Your task to perform on an android device: Open Maps and search for coffee Image 0: 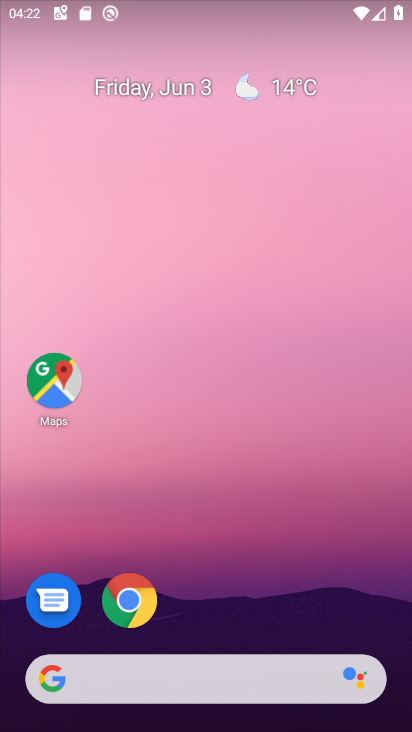
Step 0: click (55, 370)
Your task to perform on an android device: Open Maps and search for coffee Image 1: 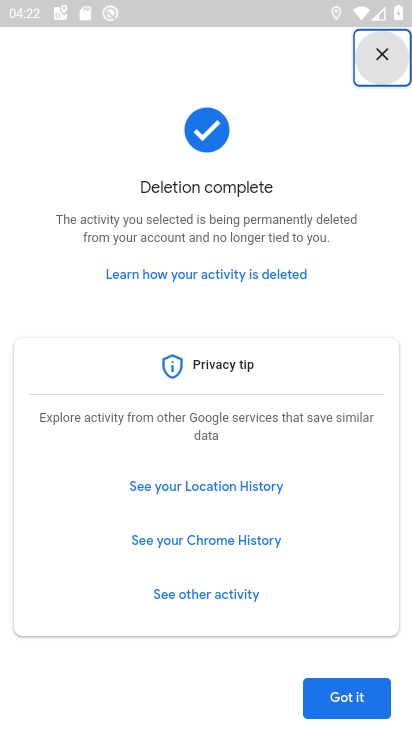
Step 1: click (345, 711)
Your task to perform on an android device: Open Maps and search for coffee Image 2: 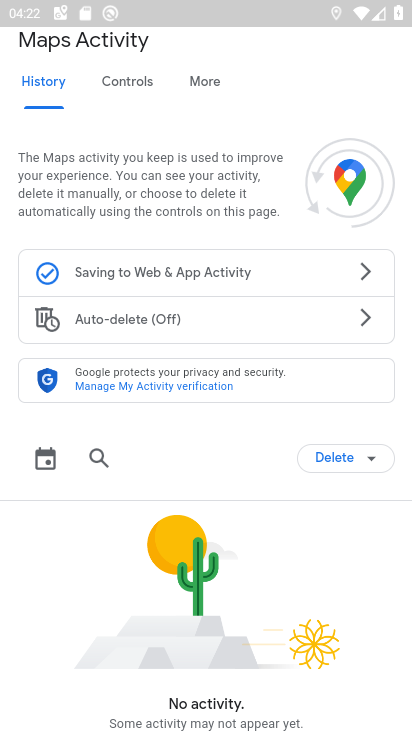
Step 2: press back button
Your task to perform on an android device: Open Maps and search for coffee Image 3: 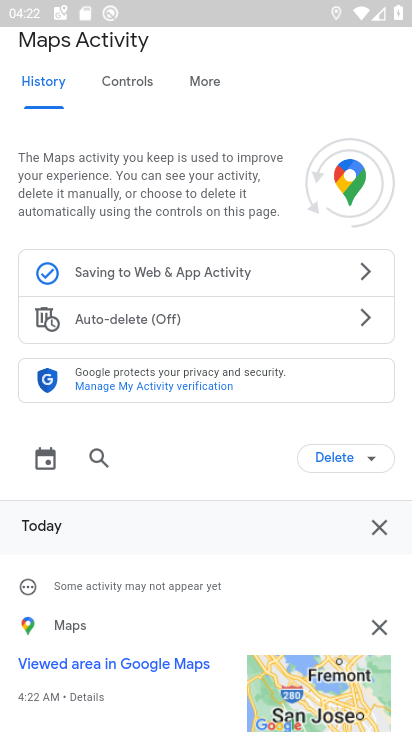
Step 3: press back button
Your task to perform on an android device: Open Maps and search for coffee Image 4: 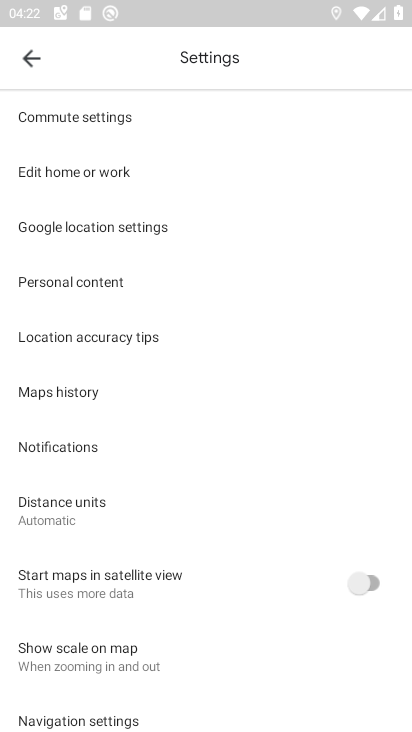
Step 4: click (18, 64)
Your task to perform on an android device: Open Maps and search for coffee Image 5: 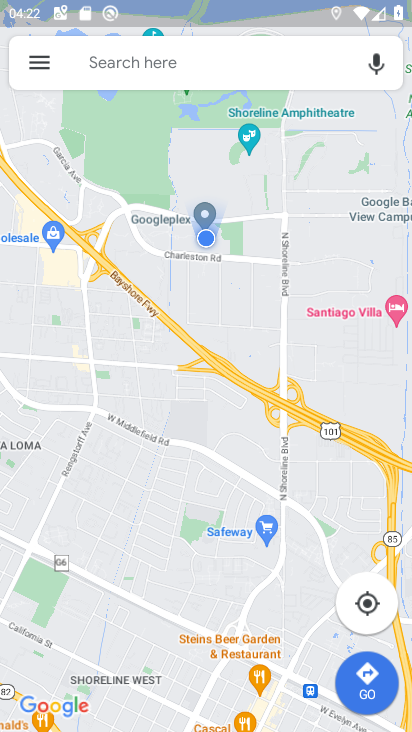
Step 5: click (148, 75)
Your task to perform on an android device: Open Maps and search for coffee Image 6: 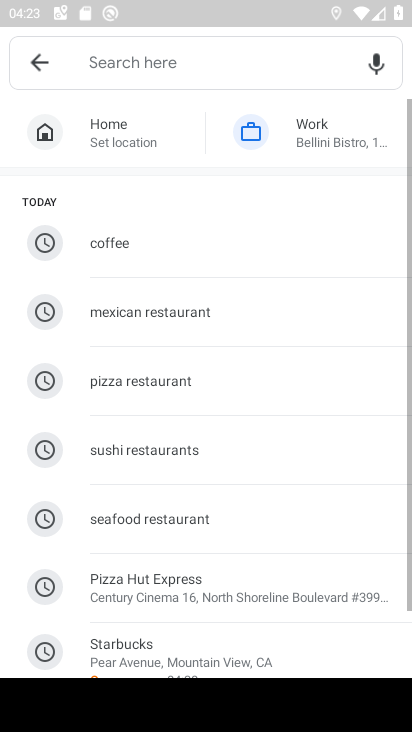
Step 6: click (110, 243)
Your task to perform on an android device: Open Maps and search for coffee Image 7: 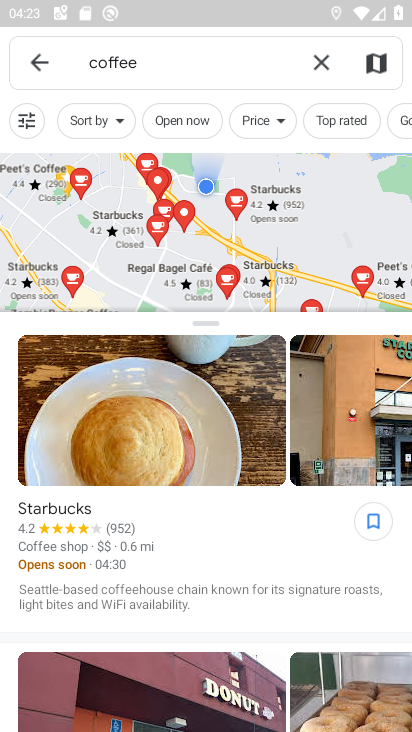
Step 7: task complete